Your task to perform on an android device: Go to accessibility settings Image 0: 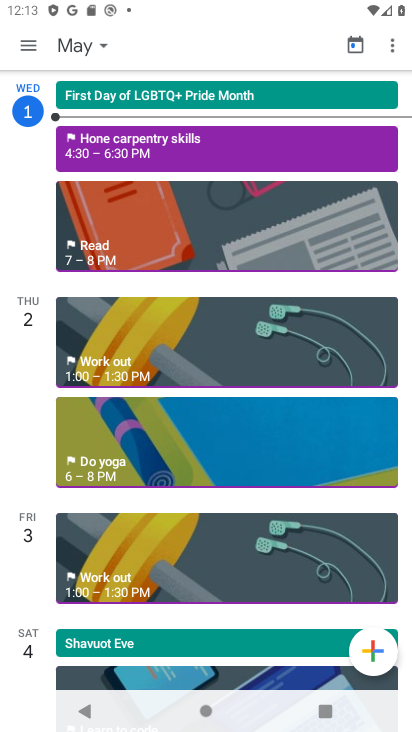
Step 0: press home button
Your task to perform on an android device: Go to accessibility settings Image 1: 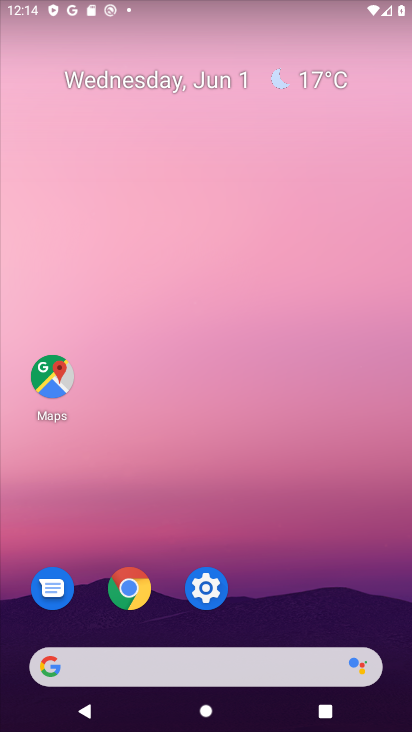
Step 1: drag from (223, 680) to (221, 135)
Your task to perform on an android device: Go to accessibility settings Image 2: 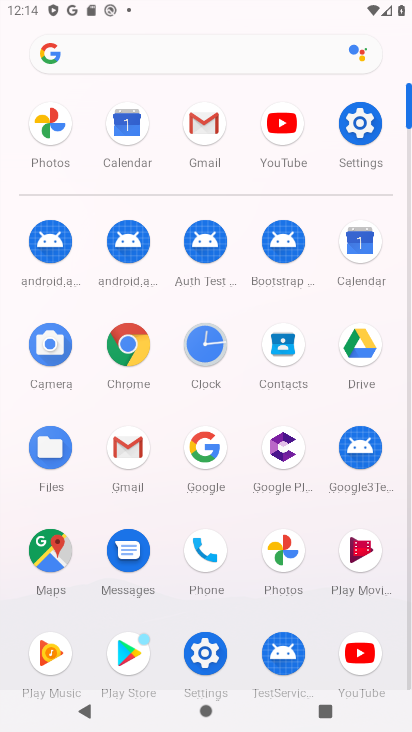
Step 2: click (355, 121)
Your task to perform on an android device: Go to accessibility settings Image 3: 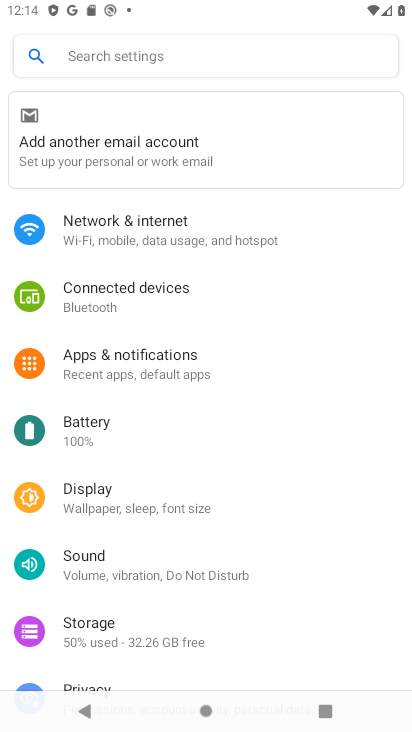
Step 3: click (89, 56)
Your task to perform on an android device: Go to accessibility settings Image 4: 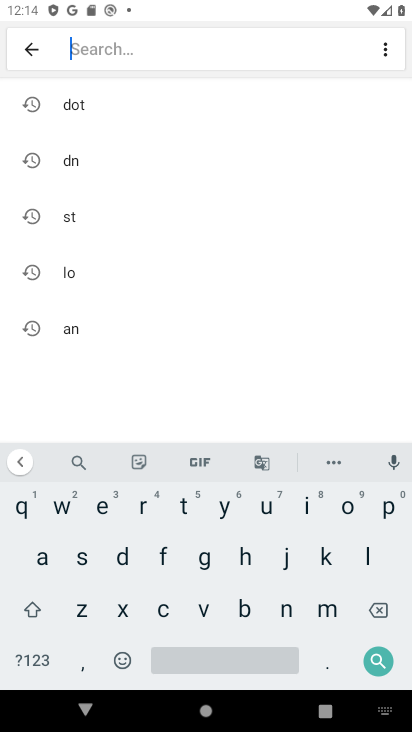
Step 4: click (39, 556)
Your task to perform on an android device: Go to accessibility settings Image 5: 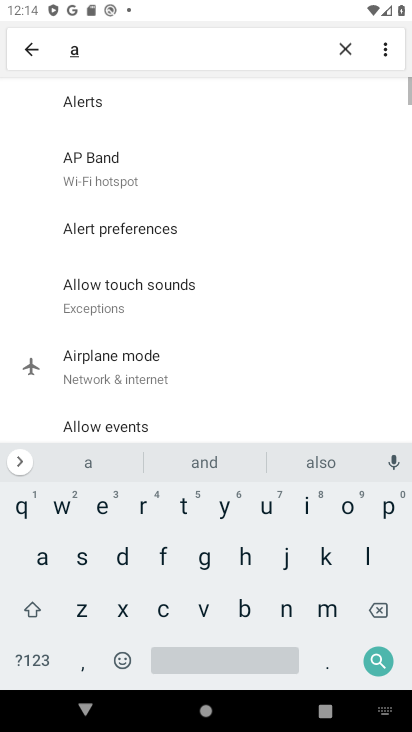
Step 5: click (160, 613)
Your task to perform on an android device: Go to accessibility settings Image 6: 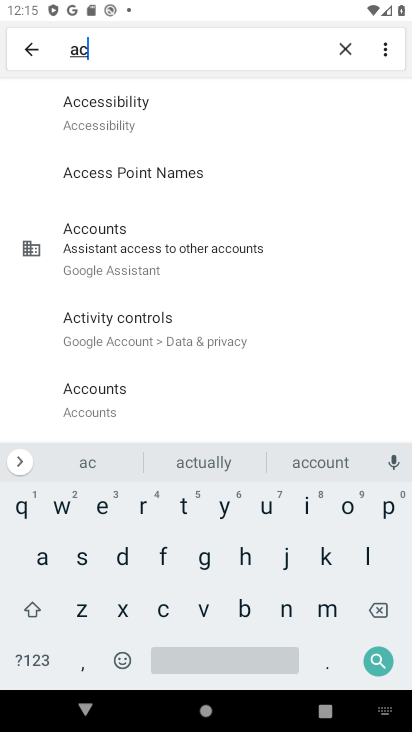
Step 6: click (142, 101)
Your task to perform on an android device: Go to accessibility settings Image 7: 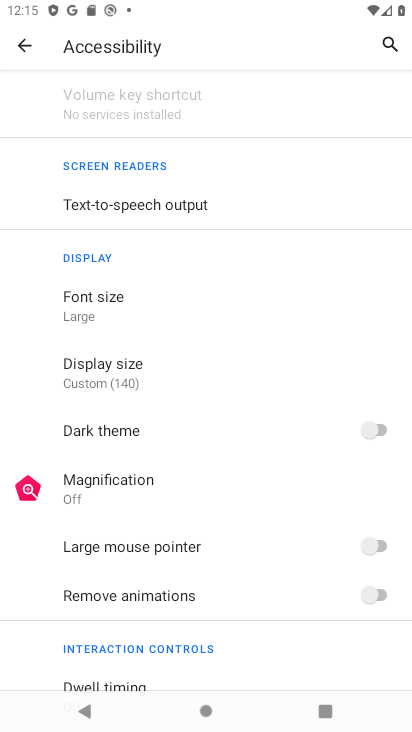
Step 7: task complete